Your task to perform on an android device: Open the stopwatch Image 0: 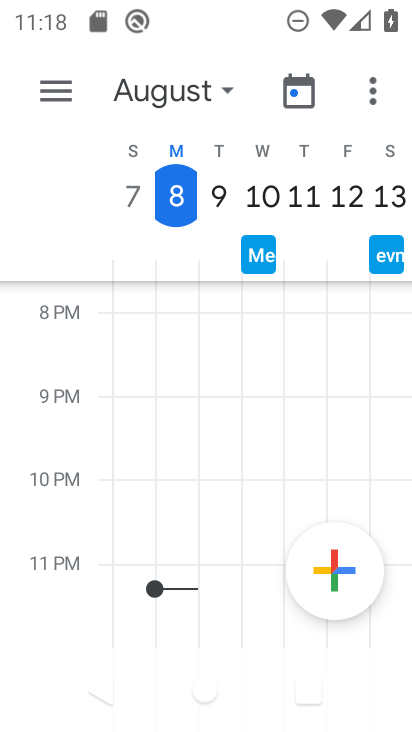
Step 0: press home button
Your task to perform on an android device: Open the stopwatch Image 1: 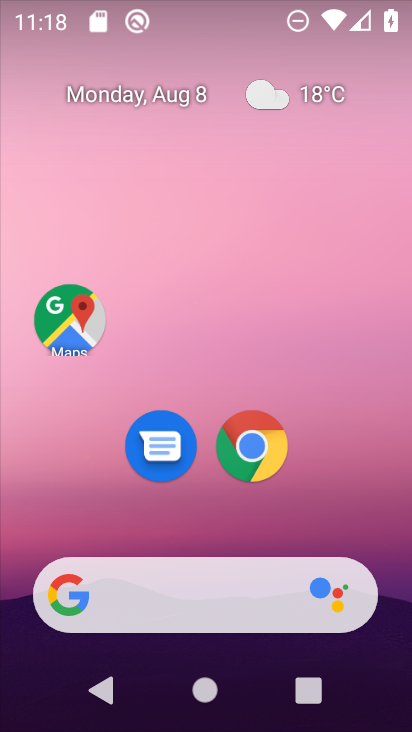
Step 1: drag from (409, 598) to (346, 221)
Your task to perform on an android device: Open the stopwatch Image 2: 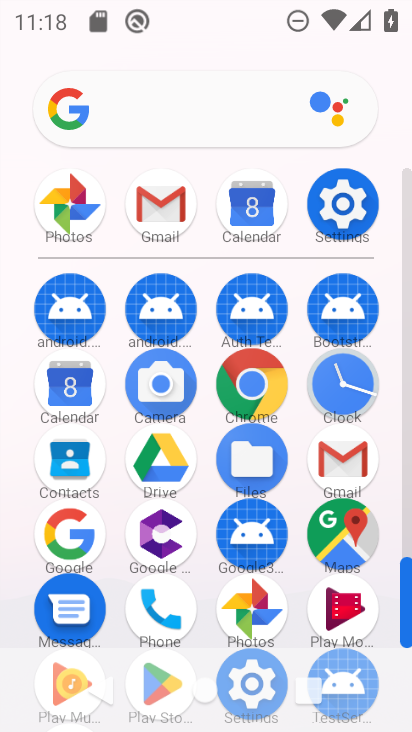
Step 2: click (343, 381)
Your task to perform on an android device: Open the stopwatch Image 3: 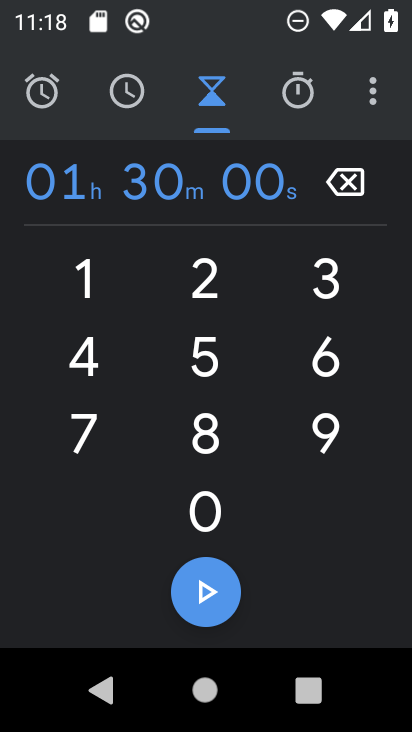
Step 3: click (298, 90)
Your task to perform on an android device: Open the stopwatch Image 4: 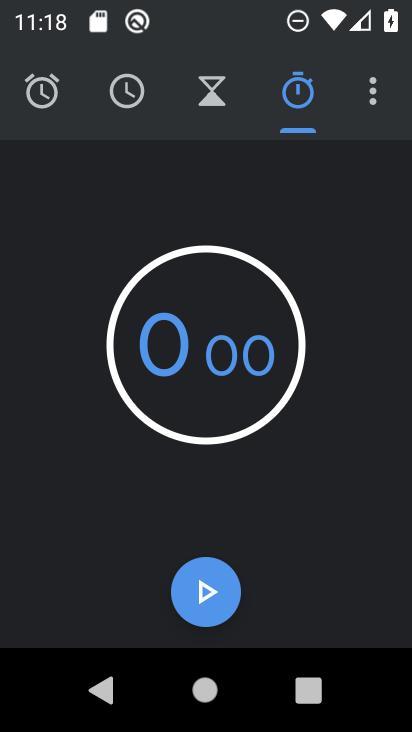
Step 4: task complete